Your task to perform on an android device: toggle notifications settings in the gmail app Image 0: 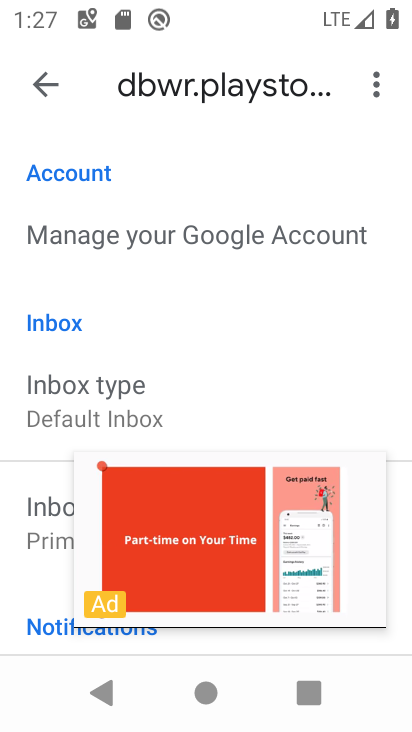
Step 0: click (350, 487)
Your task to perform on an android device: toggle notifications settings in the gmail app Image 1: 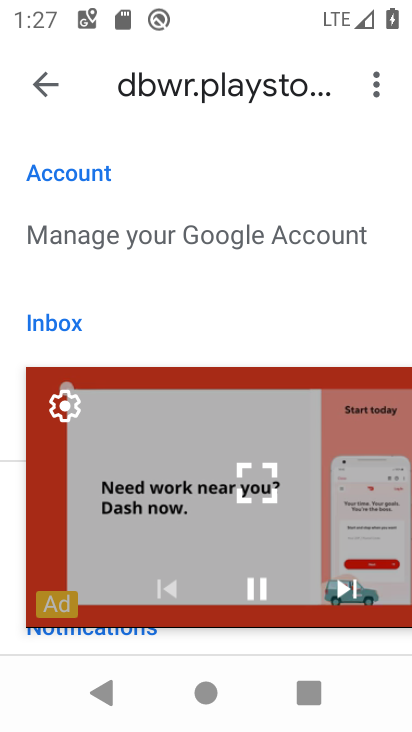
Step 1: drag from (376, 416) to (163, 450)
Your task to perform on an android device: toggle notifications settings in the gmail app Image 2: 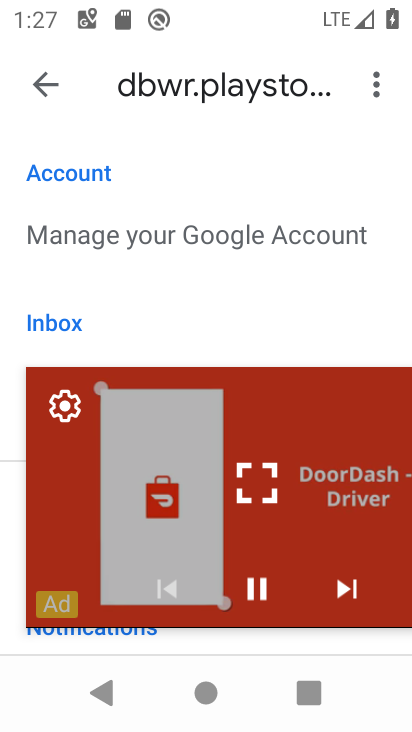
Step 2: drag from (342, 481) to (189, 730)
Your task to perform on an android device: toggle notifications settings in the gmail app Image 3: 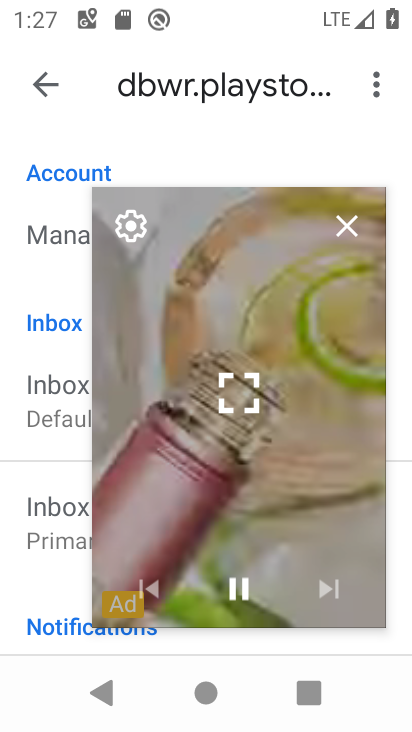
Step 3: click (343, 218)
Your task to perform on an android device: toggle notifications settings in the gmail app Image 4: 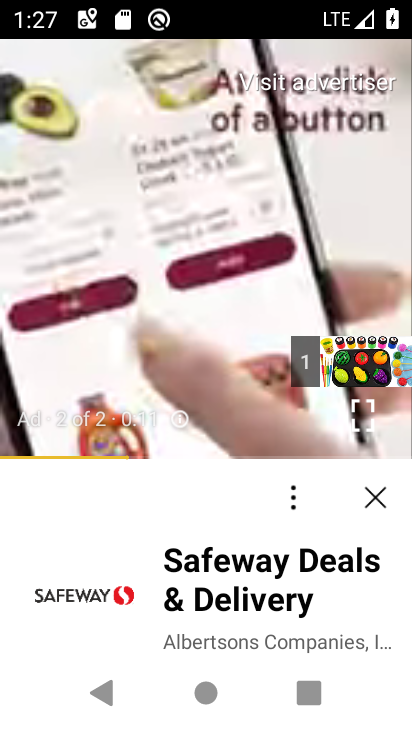
Step 4: click (378, 487)
Your task to perform on an android device: toggle notifications settings in the gmail app Image 5: 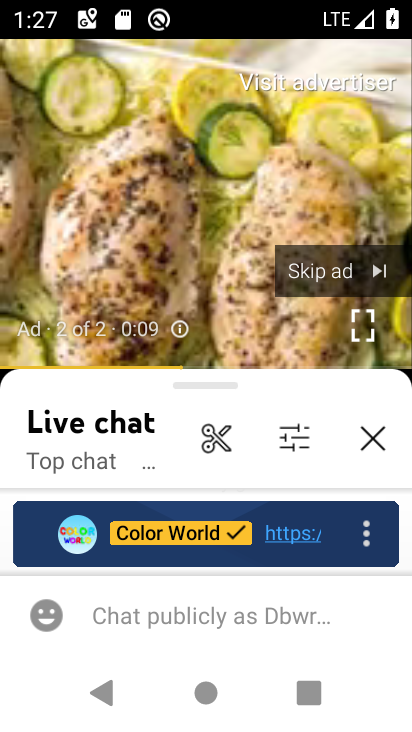
Step 5: drag from (213, 201) to (305, 725)
Your task to perform on an android device: toggle notifications settings in the gmail app Image 6: 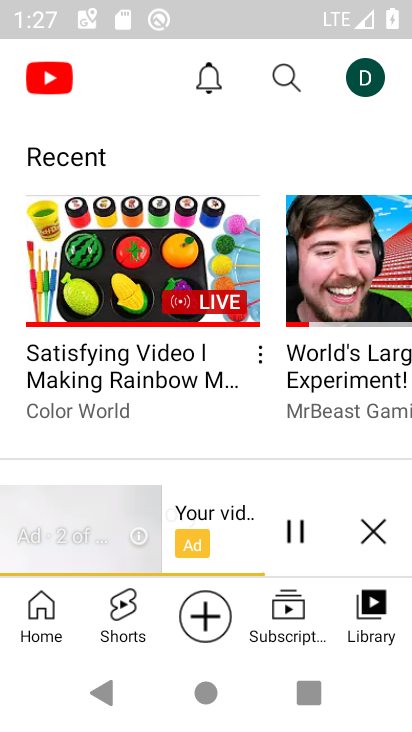
Step 6: press home button
Your task to perform on an android device: toggle notifications settings in the gmail app Image 7: 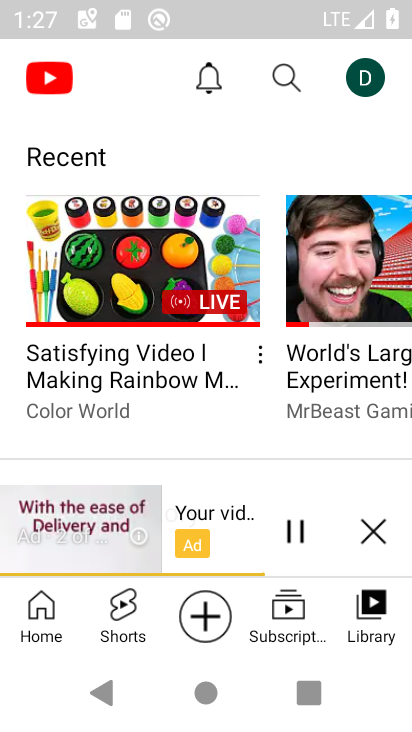
Step 7: click (411, 583)
Your task to perform on an android device: toggle notifications settings in the gmail app Image 8: 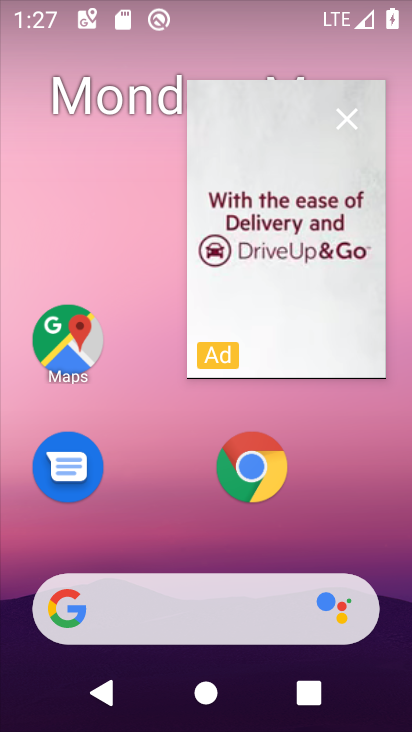
Step 8: click (347, 126)
Your task to perform on an android device: toggle notifications settings in the gmail app Image 9: 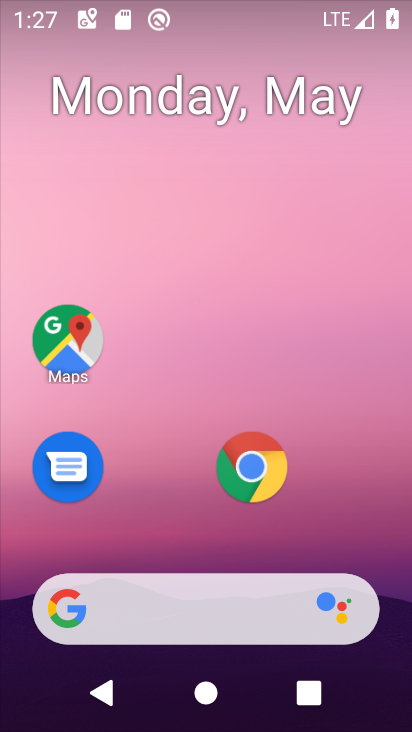
Step 9: drag from (194, 529) to (262, 90)
Your task to perform on an android device: toggle notifications settings in the gmail app Image 10: 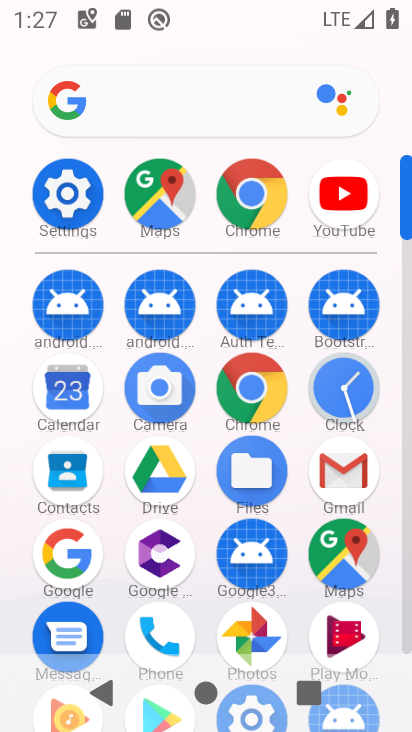
Step 10: click (352, 463)
Your task to perform on an android device: toggle notifications settings in the gmail app Image 11: 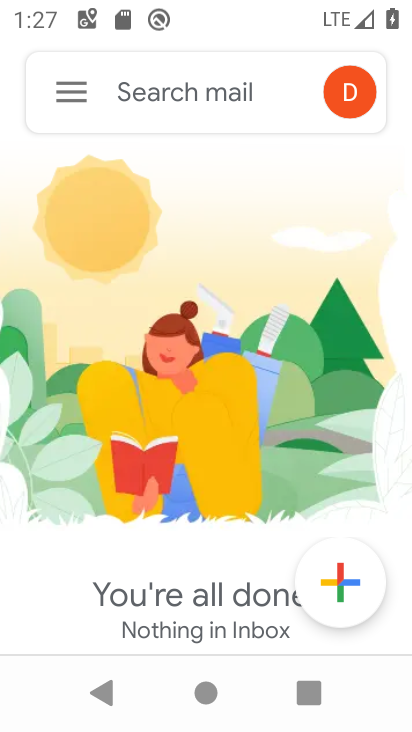
Step 11: drag from (159, 559) to (258, 73)
Your task to perform on an android device: toggle notifications settings in the gmail app Image 12: 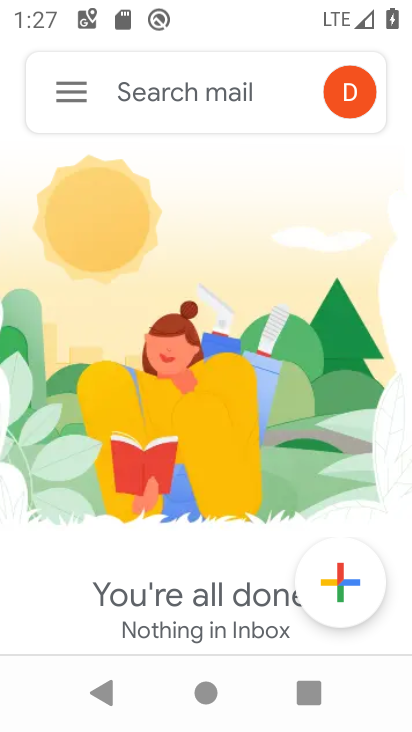
Step 12: click (69, 104)
Your task to perform on an android device: toggle notifications settings in the gmail app Image 13: 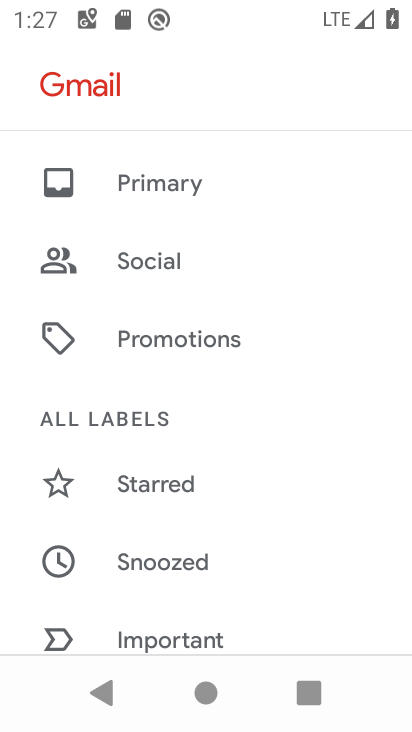
Step 13: drag from (212, 493) to (292, 148)
Your task to perform on an android device: toggle notifications settings in the gmail app Image 14: 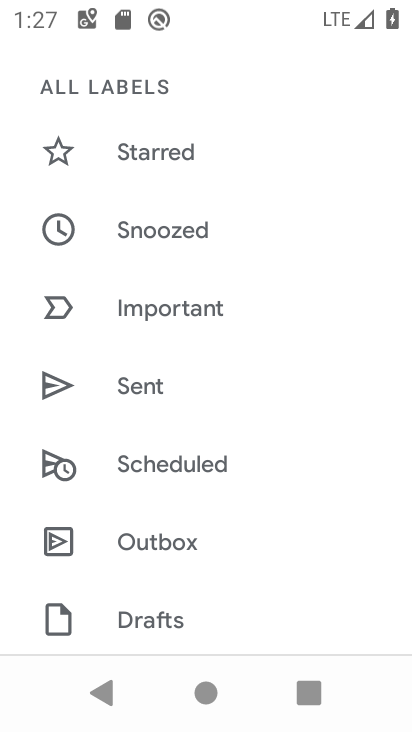
Step 14: drag from (217, 557) to (325, 129)
Your task to perform on an android device: toggle notifications settings in the gmail app Image 15: 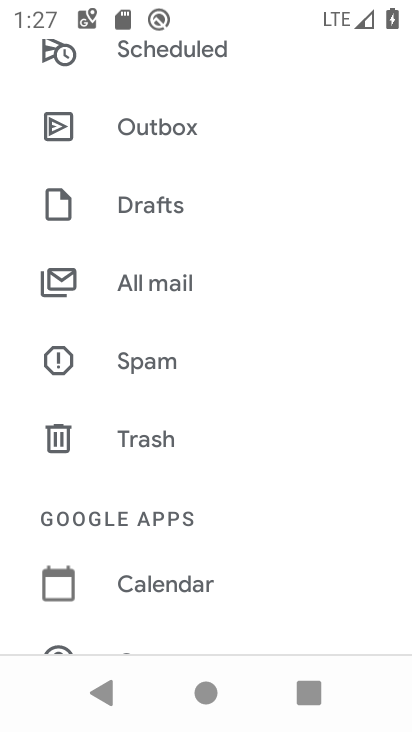
Step 15: drag from (187, 631) to (347, 127)
Your task to perform on an android device: toggle notifications settings in the gmail app Image 16: 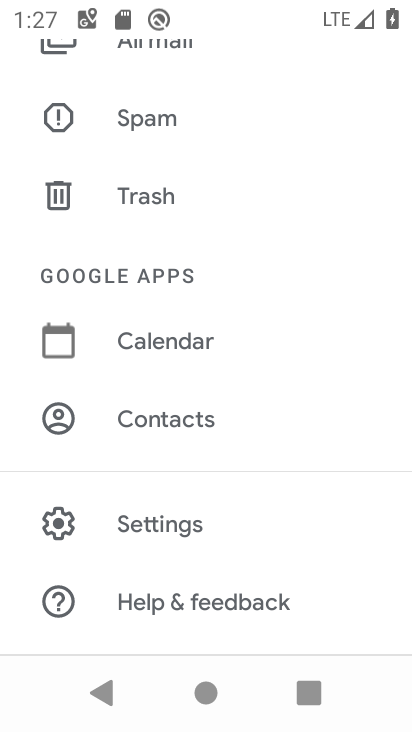
Step 16: click (160, 524)
Your task to perform on an android device: toggle notifications settings in the gmail app Image 17: 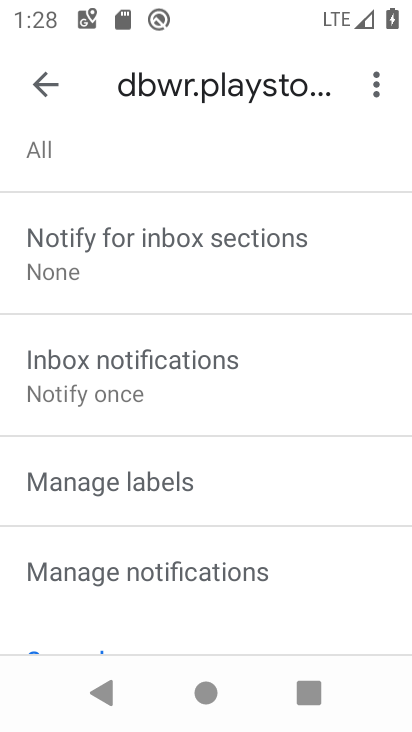
Step 17: drag from (200, 622) to (297, 277)
Your task to perform on an android device: toggle notifications settings in the gmail app Image 18: 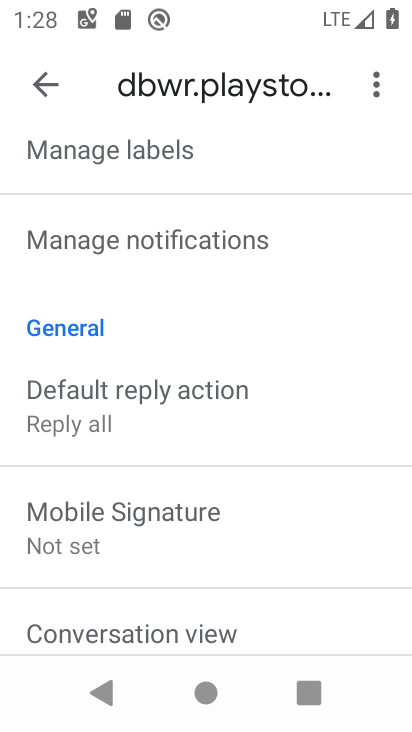
Step 18: click (245, 241)
Your task to perform on an android device: toggle notifications settings in the gmail app Image 19: 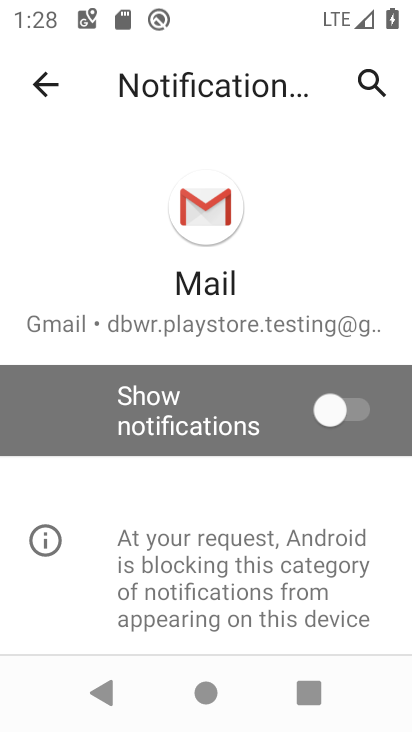
Step 19: drag from (247, 635) to (328, 355)
Your task to perform on an android device: toggle notifications settings in the gmail app Image 20: 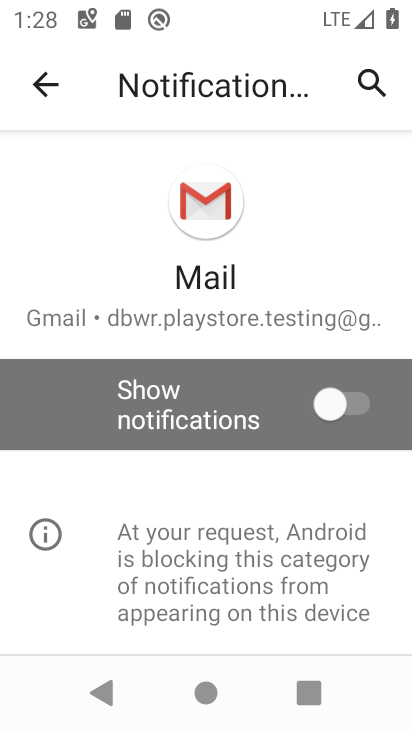
Step 20: click (308, 412)
Your task to perform on an android device: toggle notifications settings in the gmail app Image 21: 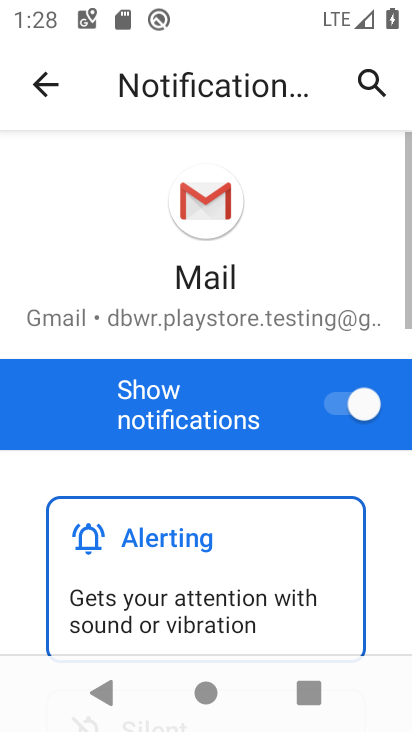
Step 21: task complete